Your task to perform on an android device: set the stopwatch Image 0: 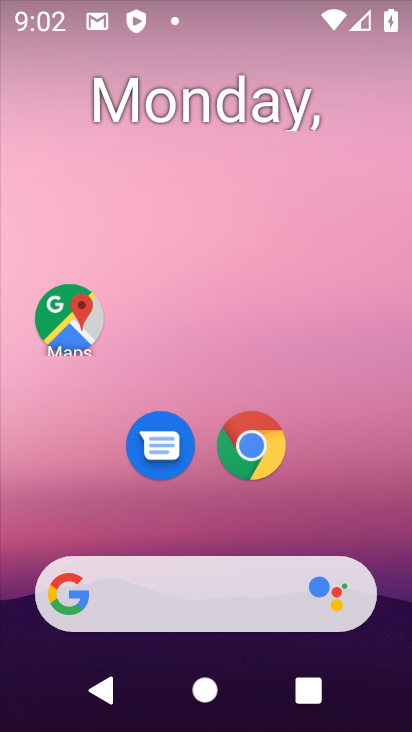
Step 0: drag from (158, 476) to (233, 1)
Your task to perform on an android device: set the stopwatch Image 1: 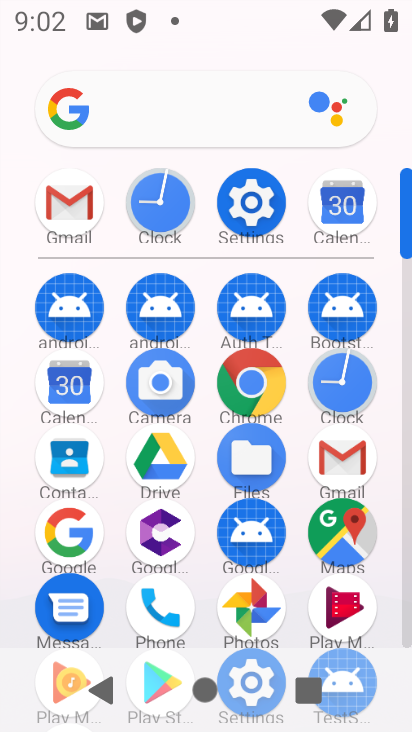
Step 1: click (136, 215)
Your task to perform on an android device: set the stopwatch Image 2: 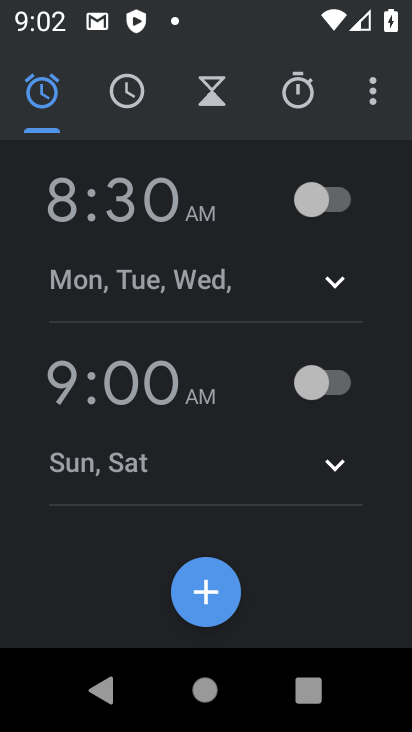
Step 2: click (307, 93)
Your task to perform on an android device: set the stopwatch Image 3: 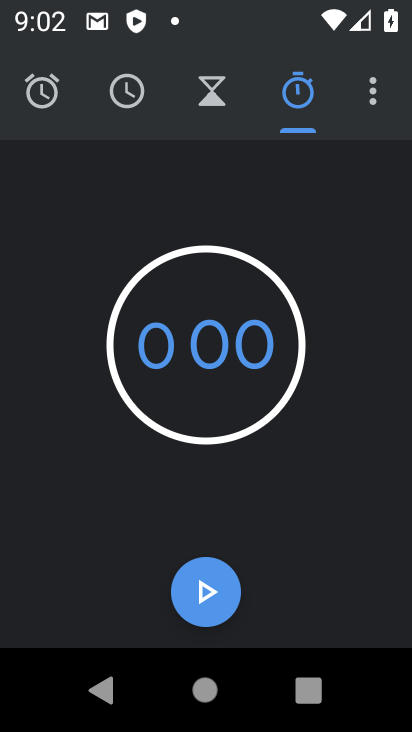
Step 3: task complete